Your task to perform on an android device: change notification settings in the gmail app Image 0: 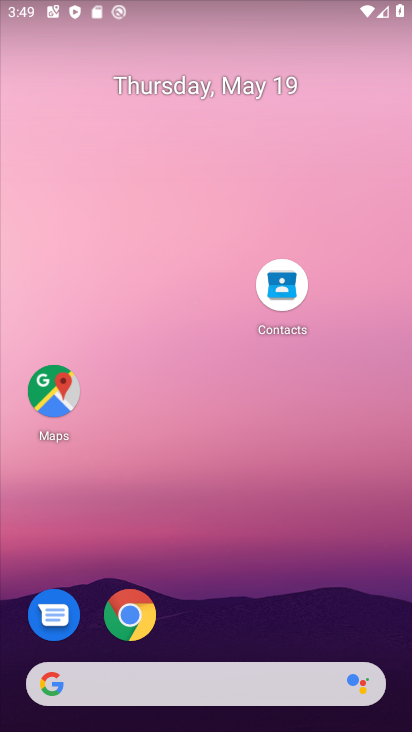
Step 0: drag from (200, 608) to (252, 103)
Your task to perform on an android device: change notification settings in the gmail app Image 1: 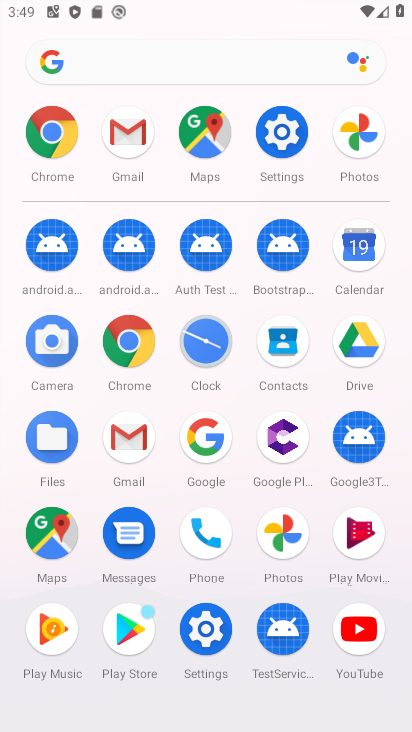
Step 1: click (134, 473)
Your task to perform on an android device: change notification settings in the gmail app Image 2: 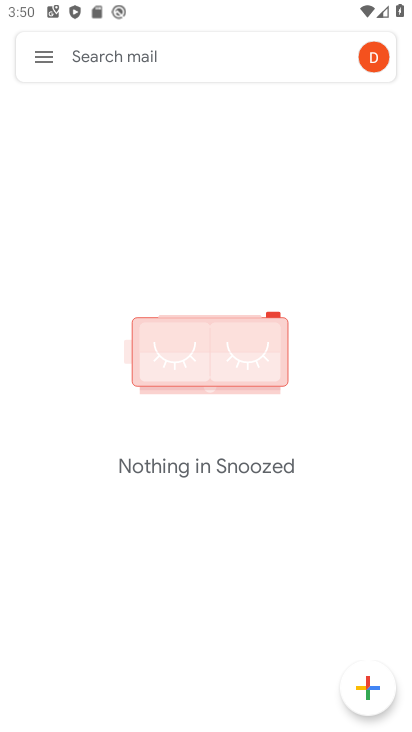
Step 2: click (46, 56)
Your task to perform on an android device: change notification settings in the gmail app Image 3: 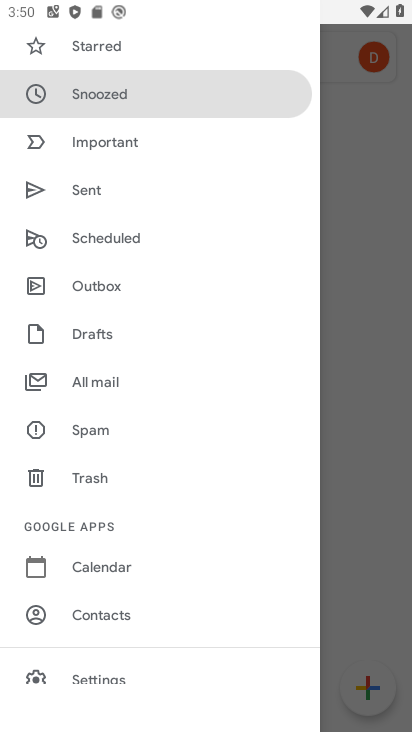
Step 3: drag from (151, 473) to (175, 161)
Your task to perform on an android device: change notification settings in the gmail app Image 4: 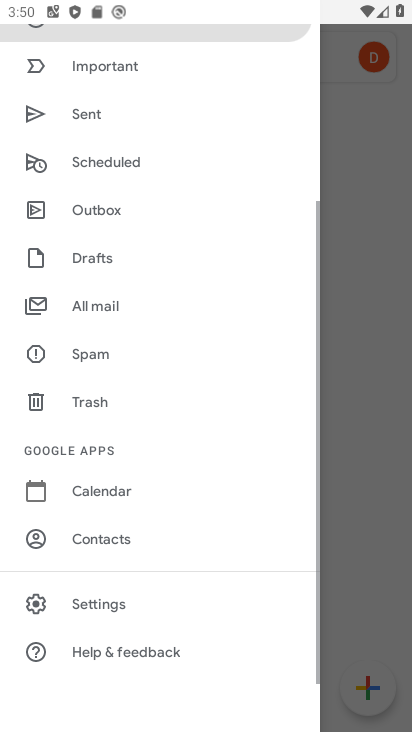
Step 4: click (98, 608)
Your task to perform on an android device: change notification settings in the gmail app Image 5: 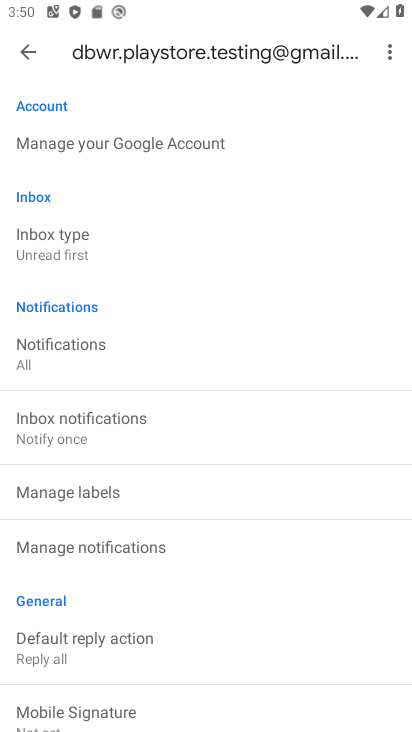
Step 5: click (33, 59)
Your task to perform on an android device: change notification settings in the gmail app Image 6: 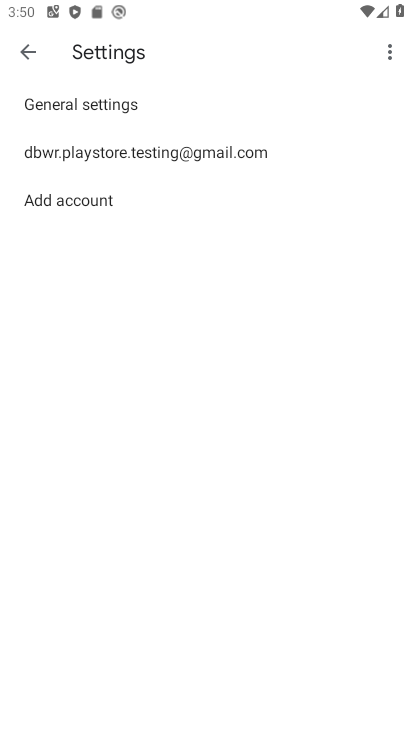
Step 6: click (65, 105)
Your task to perform on an android device: change notification settings in the gmail app Image 7: 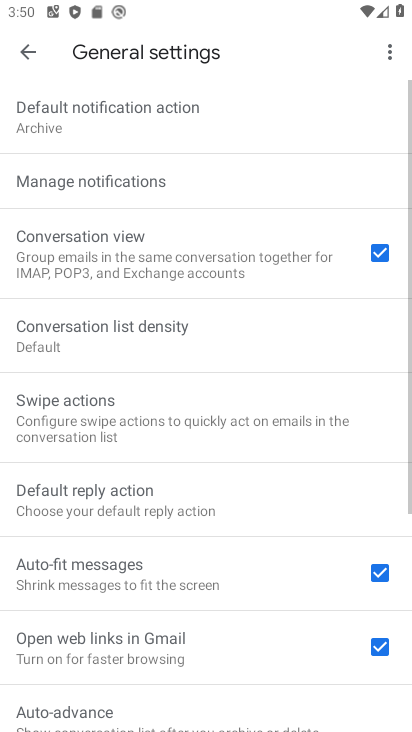
Step 7: click (91, 178)
Your task to perform on an android device: change notification settings in the gmail app Image 8: 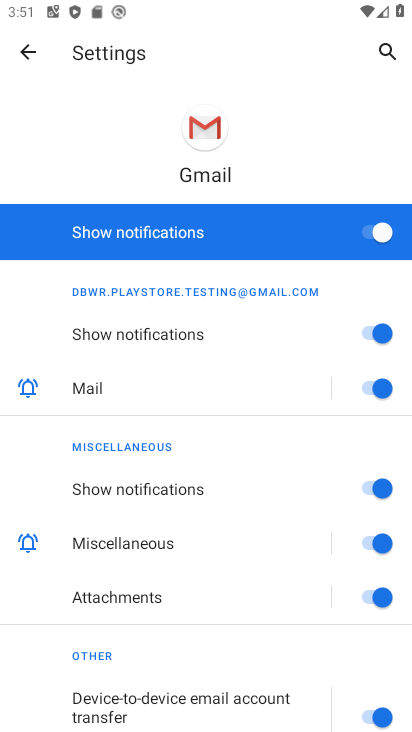
Step 8: click (226, 232)
Your task to perform on an android device: change notification settings in the gmail app Image 9: 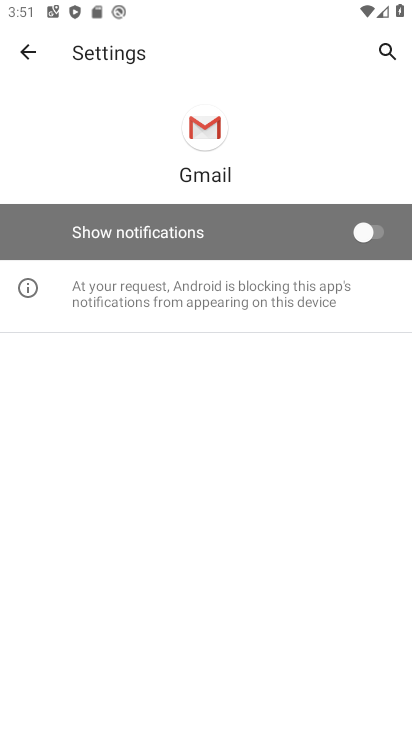
Step 9: task complete